Your task to perform on an android device: Toggle the flashlight Image 0: 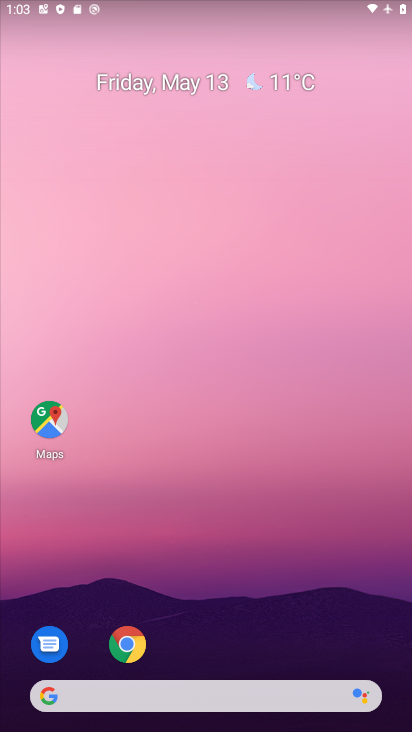
Step 0: drag from (205, 631) to (206, 26)
Your task to perform on an android device: Toggle the flashlight Image 1: 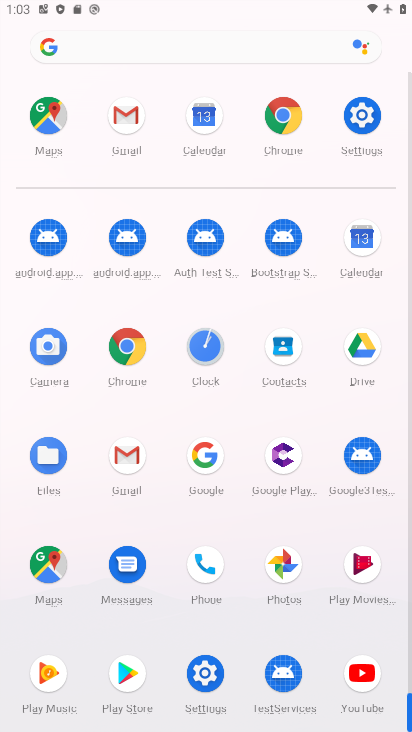
Step 1: click (364, 115)
Your task to perform on an android device: Toggle the flashlight Image 2: 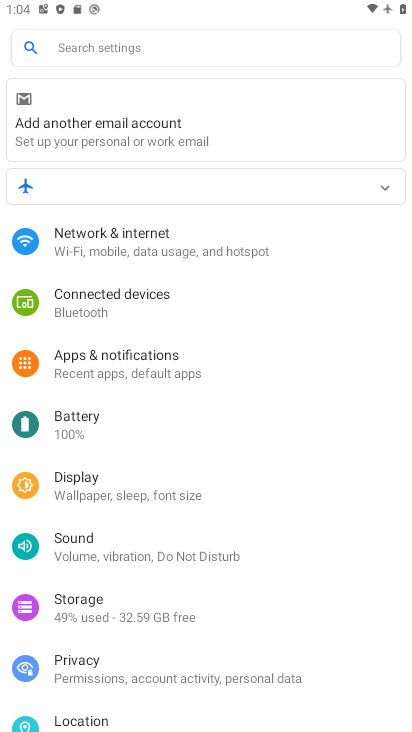
Step 2: task complete